Your task to perform on an android device: turn off smart reply in the gmail app Image 0: 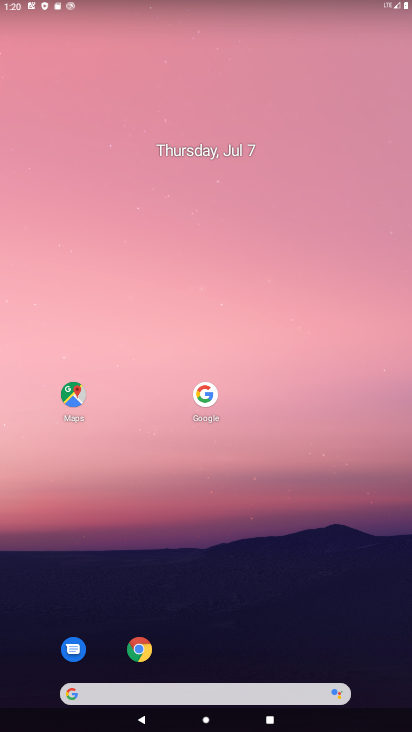
Step 0: press home button
Your task to perform on an android device: turn off smart reply in the gmail app Image 1: 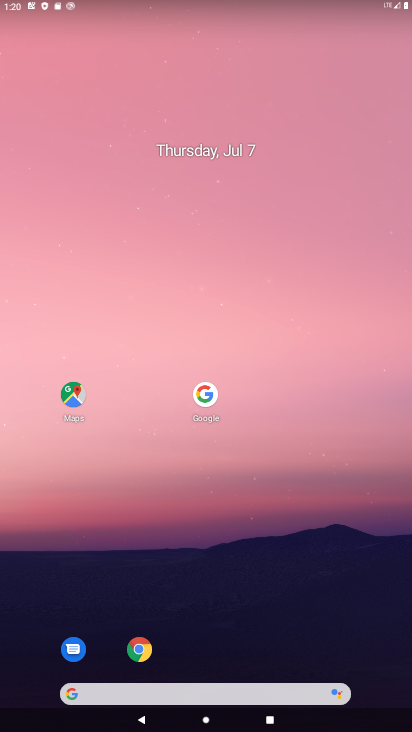
Step 1: drag from (364, 531) to (341, 0)
Your task to perform on an android device: turn off smart reply in the gmail app Image 2: 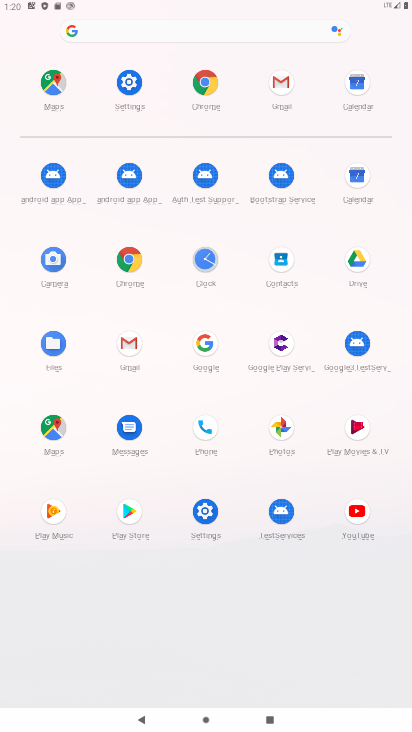
Step 2: click (284, 84)
Your task to perform on an android device: turn off smart reply in the gmail app Image 3: 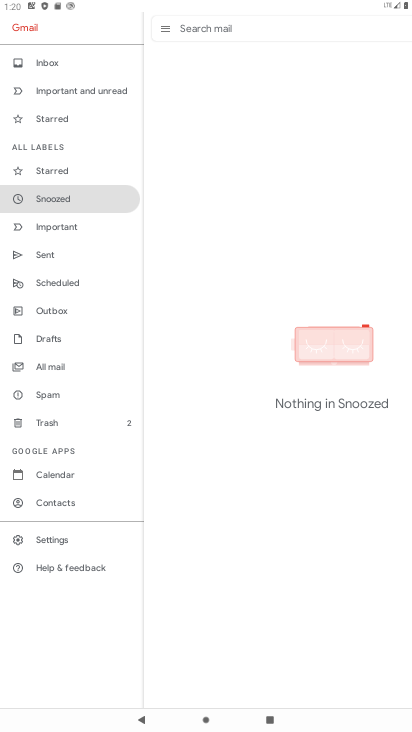
Step 3: click (57, 537)
Your task to perform on an android device: turn off smart reply in the gmail app Image 4: 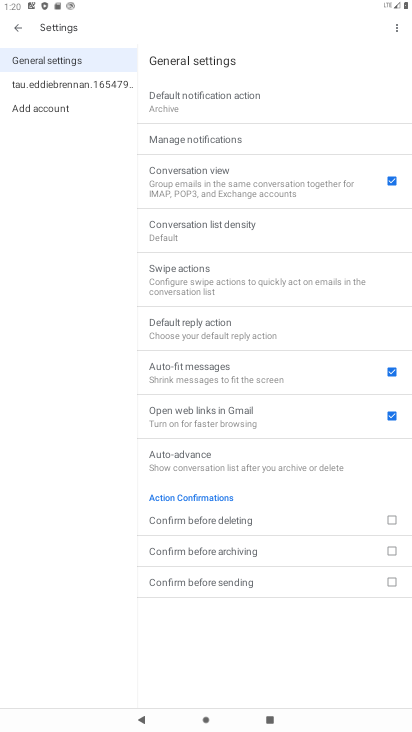
Step 4: click (85, 81)
Your task to perform on an android device: turn off smart reply in the gmail app Image 5: 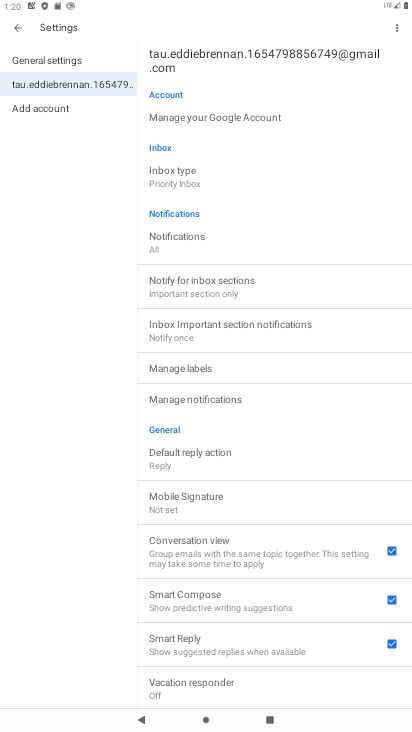
Step 5: click (388, 640)
Your task to perform on an android device: turn off smart reply in the gmail app Image 6: 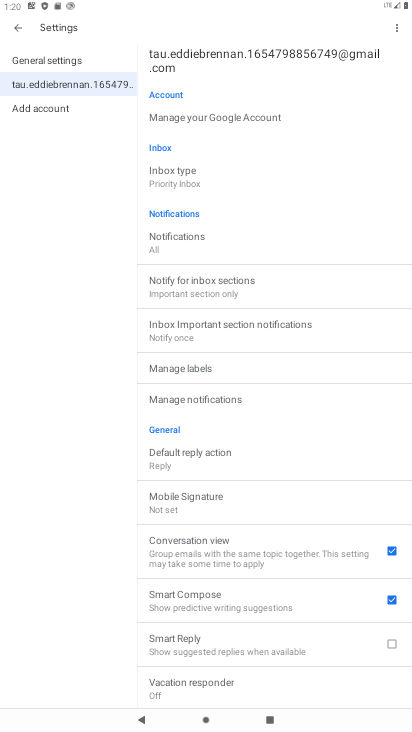
Step 6: task complete